Your task to perform on an android device: Go to Maps Image 0: 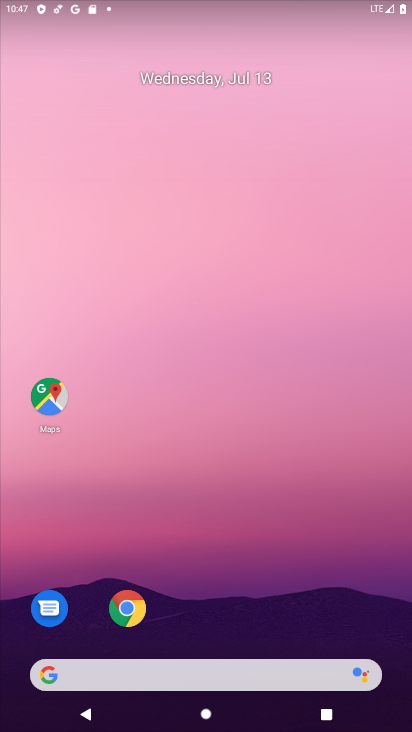
Step 0: click (43, 400)
Your task to perform on an android device: Go to Maps Image 1: 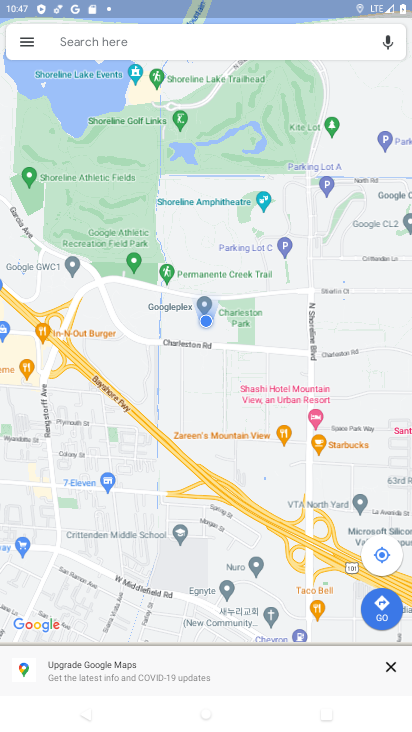
Step 1: task complete